Your task to perform on an android device: turn off data saver in the chrome app Image 0: 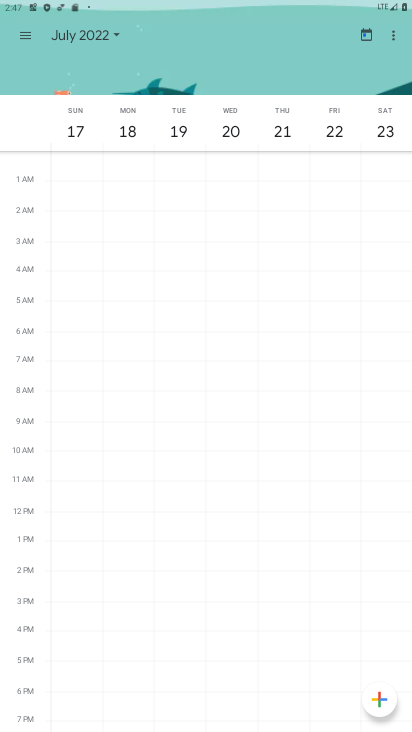
Step 0: press home button
Your task to perform on an android device: turn off data saver in the chrome app Image 1: 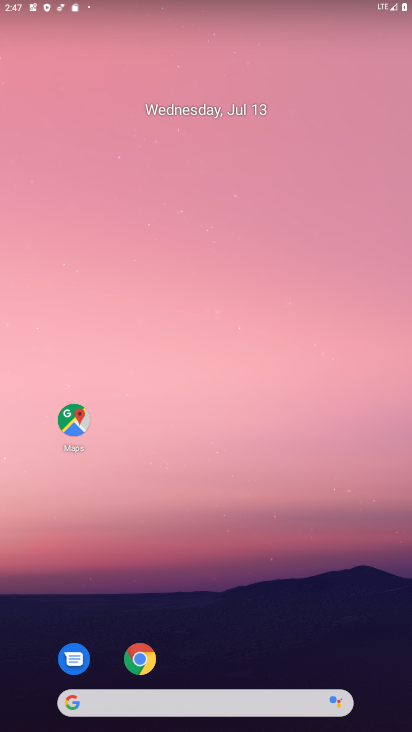
Step 1: click (139, 659)
Your task to perform on an android device: turn off data saver in the chrome app Image 2: 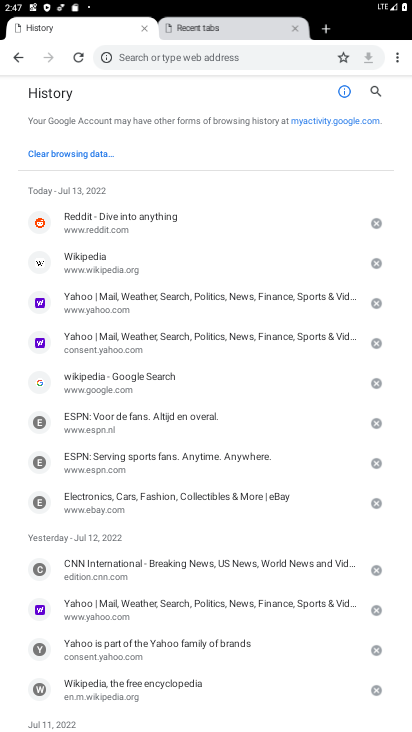
Step 2: click (394, 64)
Your task to perform on an android device: turn off data saver in the chrome app Image 3: 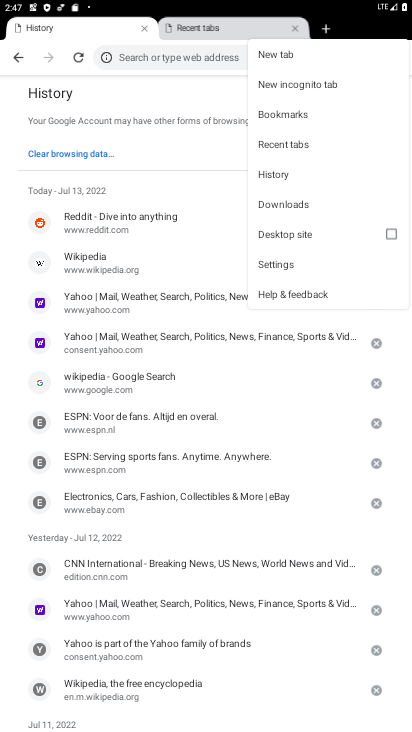
Step 3: click (276, 266)
Your task to perform on an android device: turn off data saver in the chrome app Image 4: 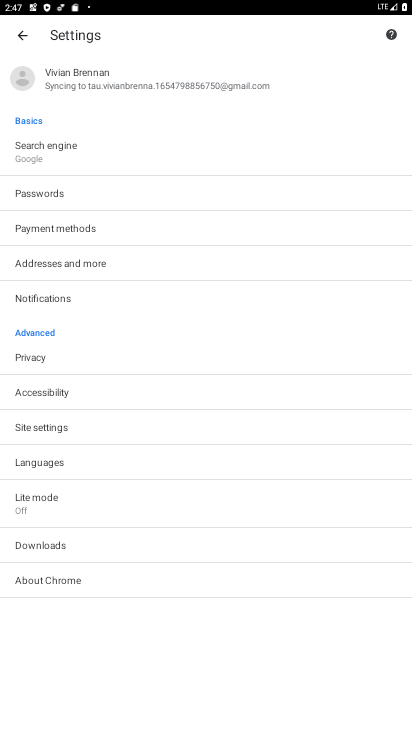
Step 4: click (21, 500)
Your task to perform on an android device: turn off data saver in the chrome app Image 5: 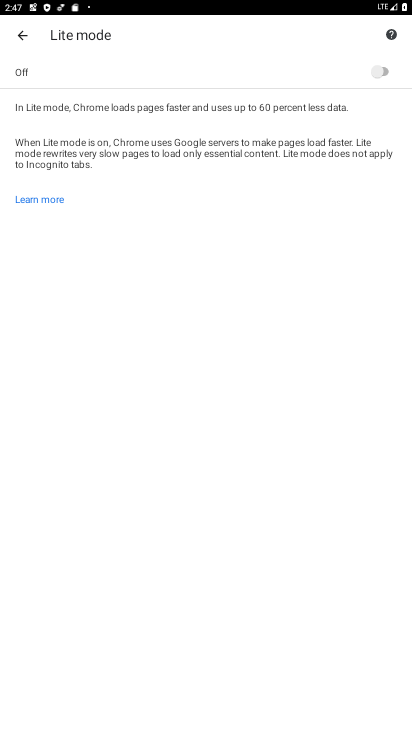
Step 5: task complete